Your task to perform on an android device: empty trash in the gmail app Image 0: 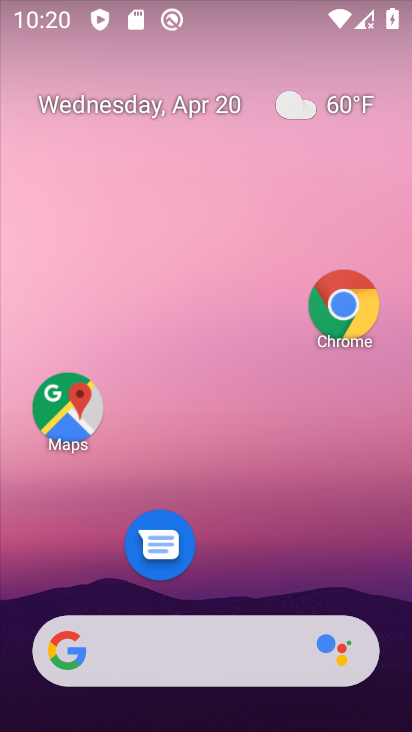
Step 0: drag from (284, 608) to (304, 328)
Your task to perform on an android device: empty trash in the gmail app Image 1: 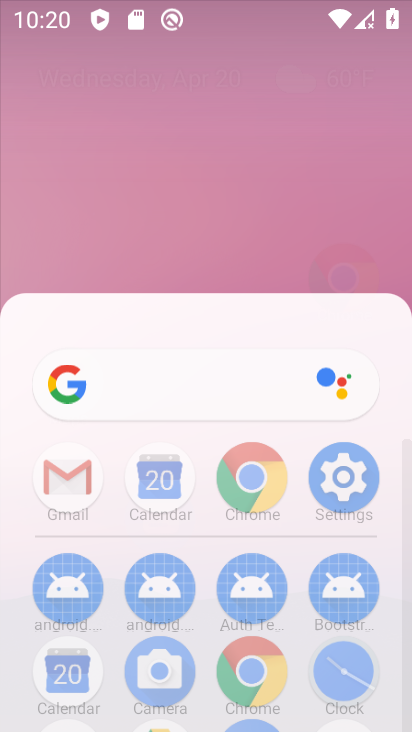
Step 1: click (329, 144)
Your task to perform on an android device: empty trash in the gmail app Image 2: 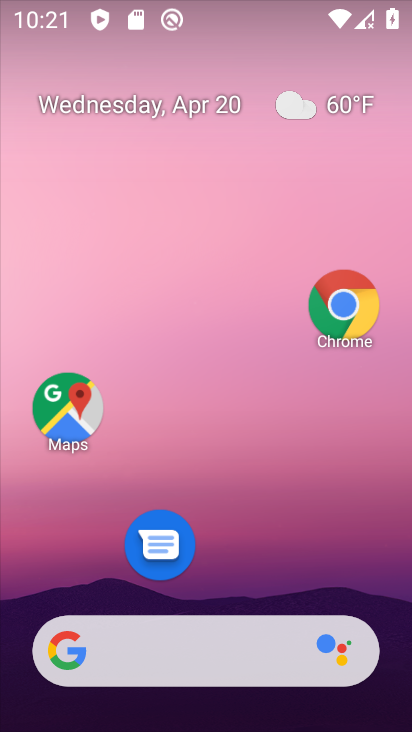
Step 2: drag from (261, 580) to (266, 52)
Your task to perform on an android device: empty trash in the gmail app Image 3: 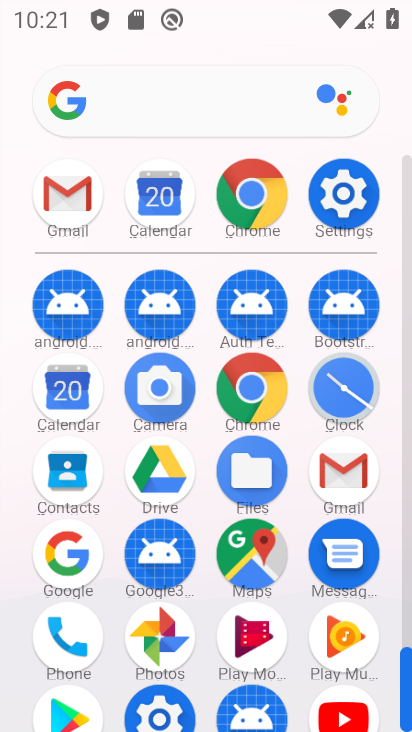
Step 3: click (350, 473)
Your task to perform on an android device: empty trash in the gmail app Image 4: 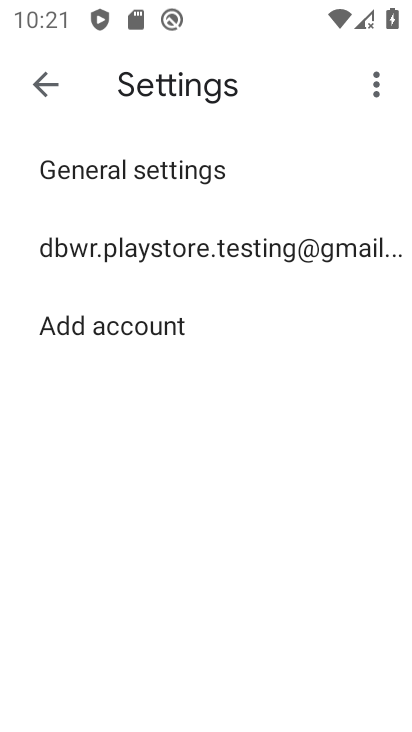
Step 4: click (62, 85)
Your task to perform on an android device: empty trash in the gmail app Image 5: 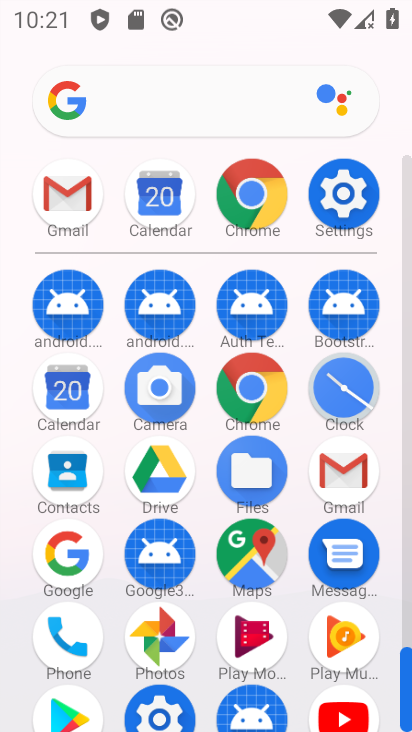
Step 5: click (353, 474)
Your task to perform on an android device: empty trash in the gmail app Image 6: 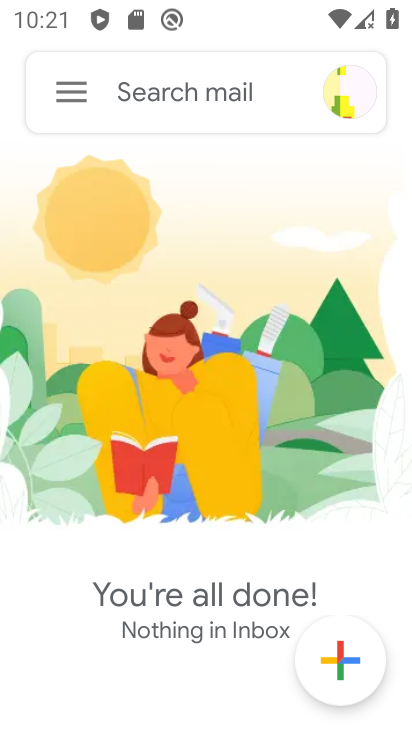
Step 6: click (81, 98)
Your task to perform on an android device: empty trash in the gmail app Image 7: 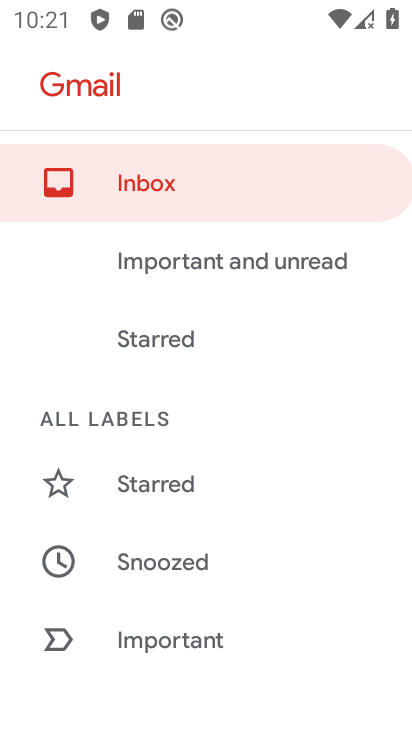
Step 7: drag from (213, 496) to (205, 338)
Your task to perform on an android device: empty trash in the gmail app Image 8: 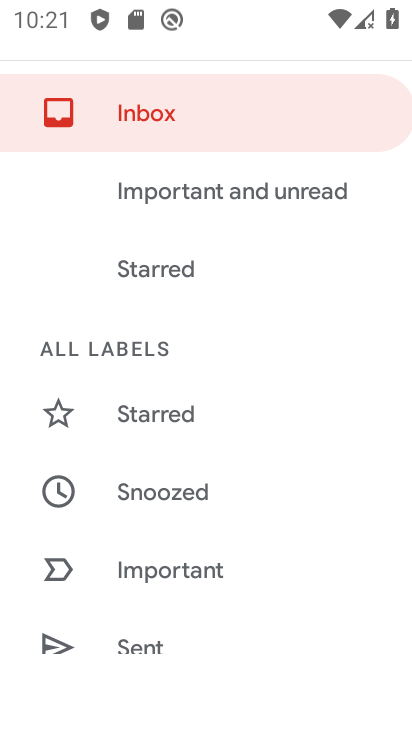
Step 8: drag from (212, 183) to (224, 138)
Your task to perform on an android device: empty trash in the gmail app Image 9: 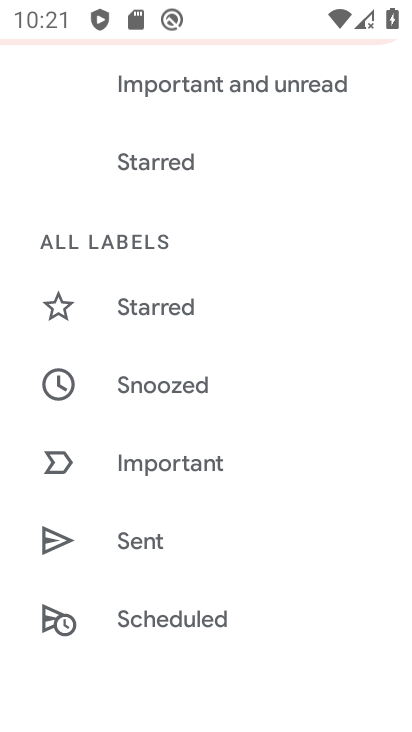
Step 9: drag from (206, 555) to (189, 152)
Your task to perform on an android device: empty trash in the gmail app Image 10: 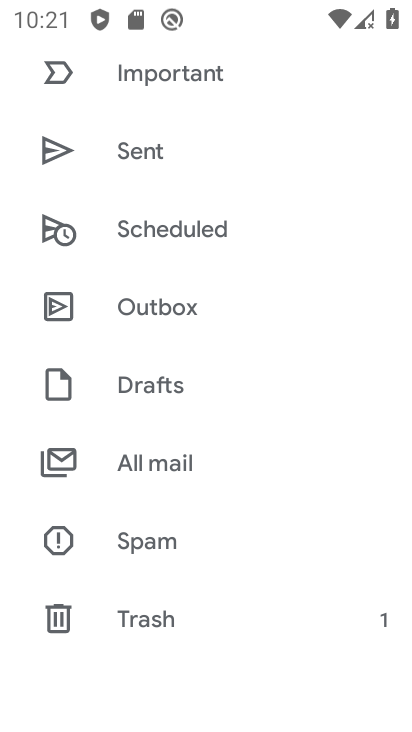
Step 10: click (211, 627)
Your task to perform on an android device: empty trash in the gmail app Image 11: 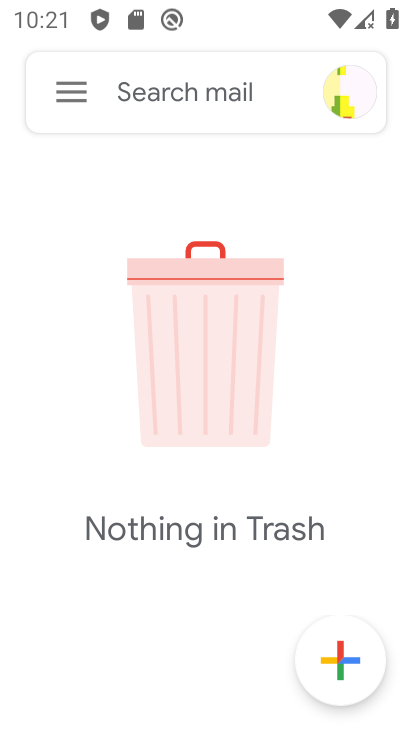
Step 11: task complete